Your task to perform on an android device: Open Chrome and go to the settings page Image 0: 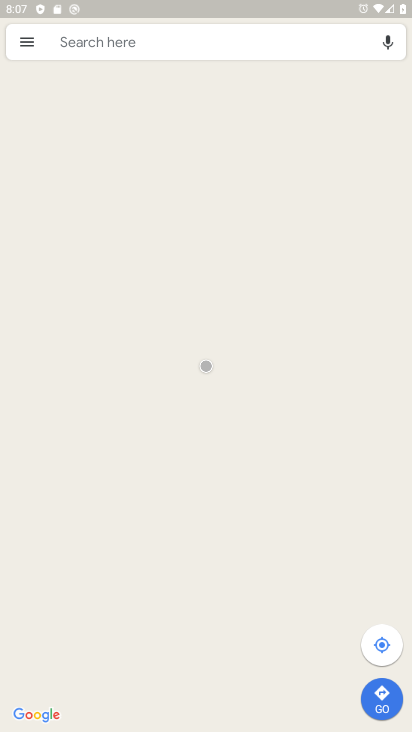
Step 0: press home button
Your task to perform on an android device: Open Chrome and go to the settings page Image 1: 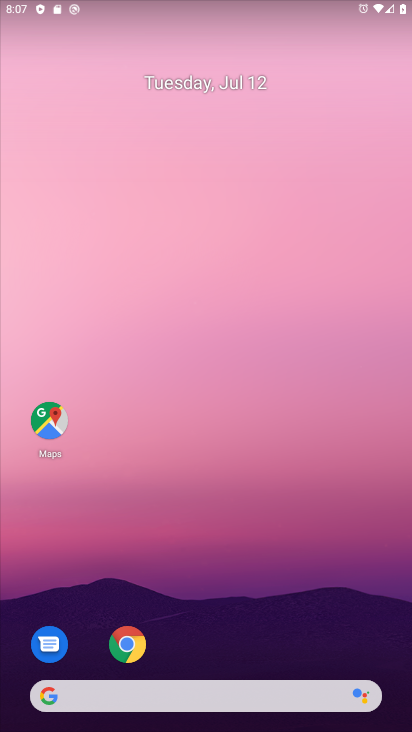
Step 1: click (124, 659)
Your task to perform on an android device: Open Chrome and go to the settings page Image 2: 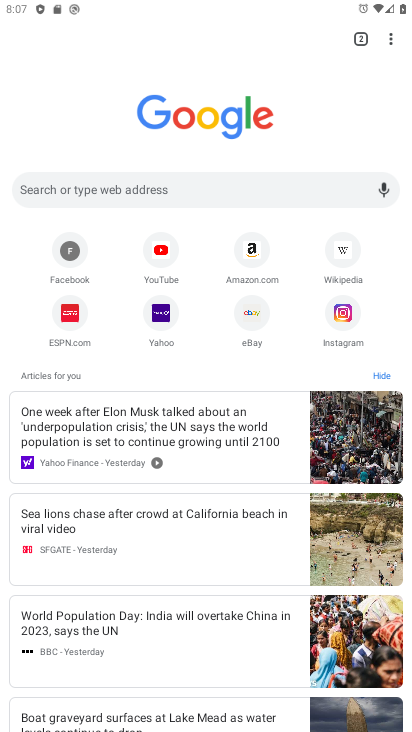
Step 2: click (387, 36)
Your task to perform on an android device: Open Chrome and go to the settings page Image 3: 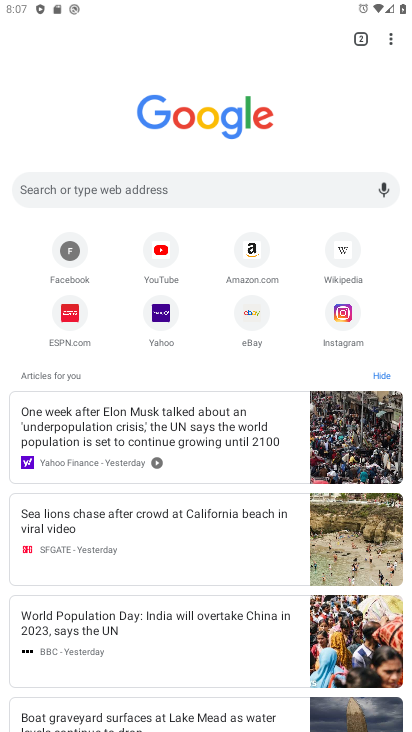
Step 3: click (390, 34)
Your task to perform on an android device: Open Chrome and go to the settings page Image 4: 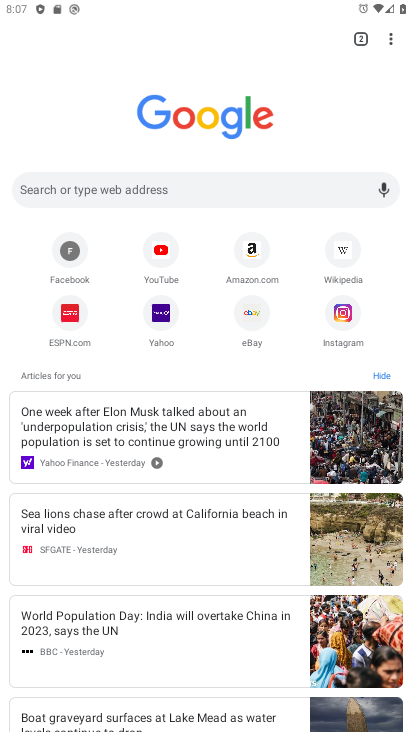
Step 4: click (391, 40)
Your task to perform on an android device: Open Chrome and go to the settings page Image 5: 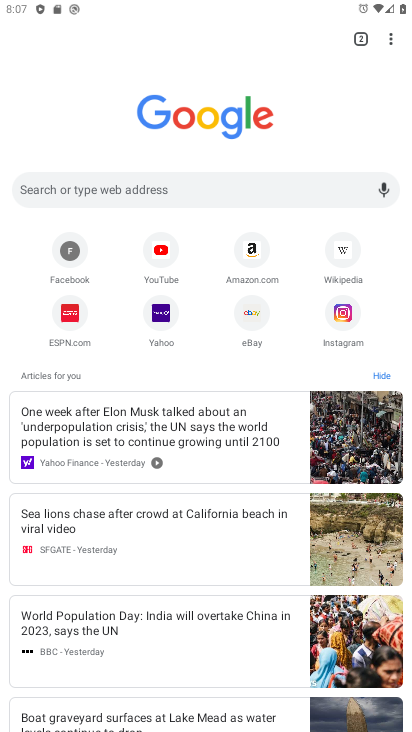
Step 5: click (392, 39)
Your task to perform on an android device: Open Chrome and go to the settings page Image 6: 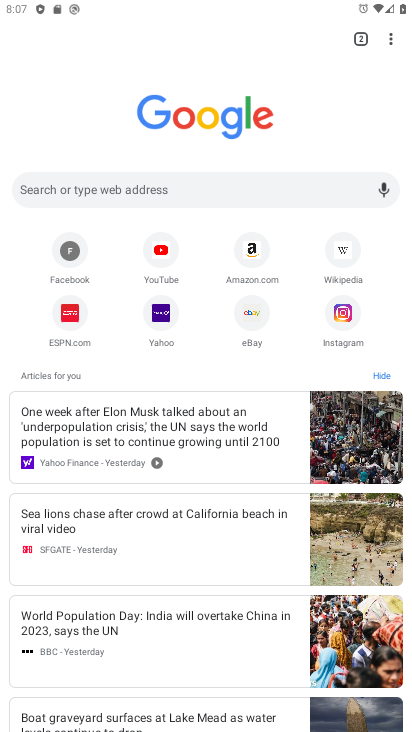
Step 6: task complete